Your task to perform on an android device: Open internet settings Image 0: 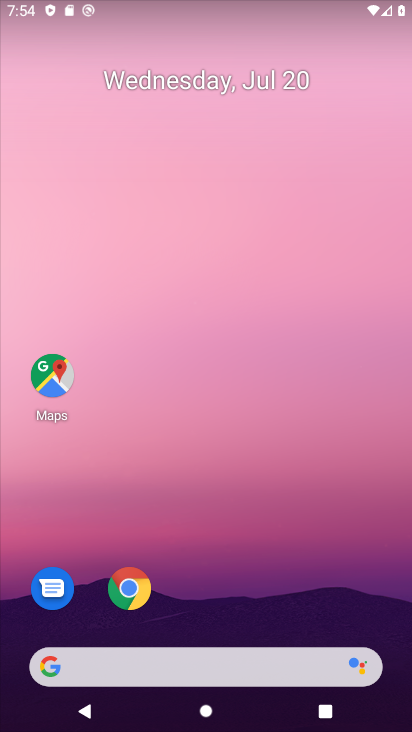
Step 0: drag from (109, 440) to (176, 249)
Your task to perform on an android device: Open internet settings Image 1: 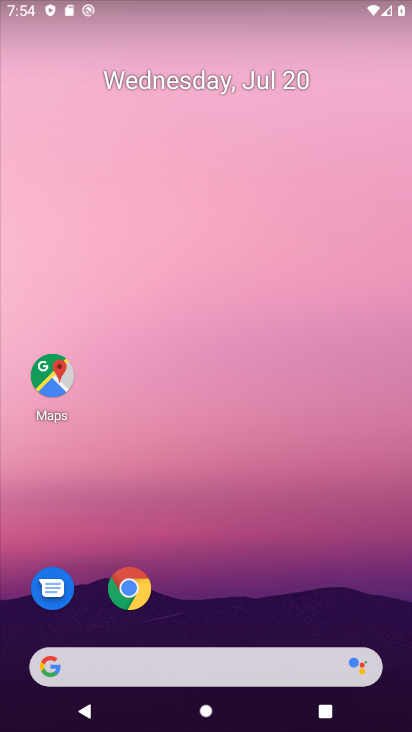
Step 1: drag from (8, 707) to (248, 82)
Your task to perform on an android device: Open internet settings Image 2: 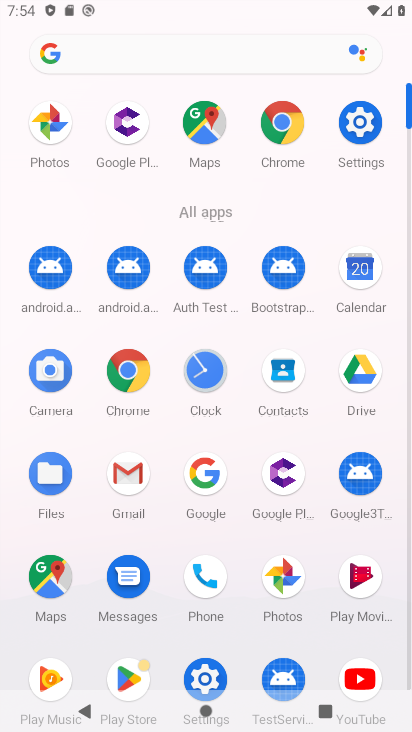
Step 2: click (195, 671)
Your task to perform on an android device: Open internet settings Image 3: 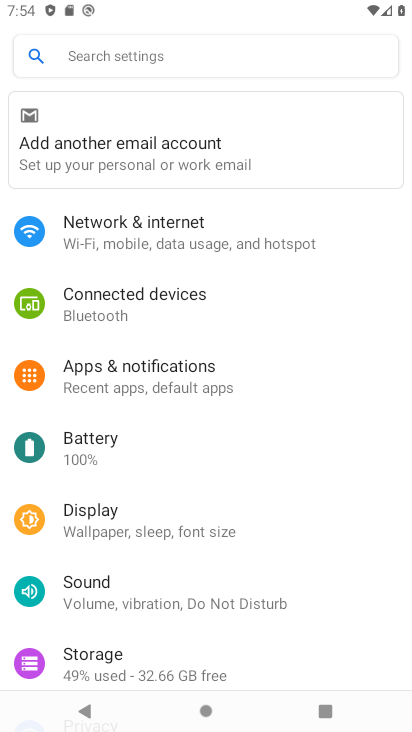
Step 3: click (162, 237)
Your task to perform on an android device: Open internet settings Image 4: 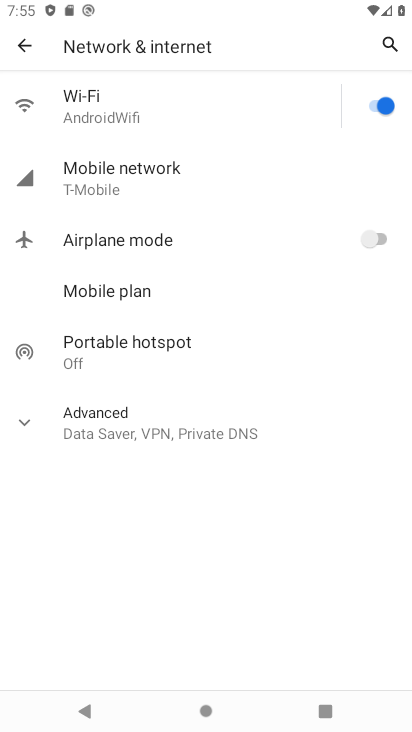
Step 4: task complete